Your task to perform on an android device: check battery use Image 0: 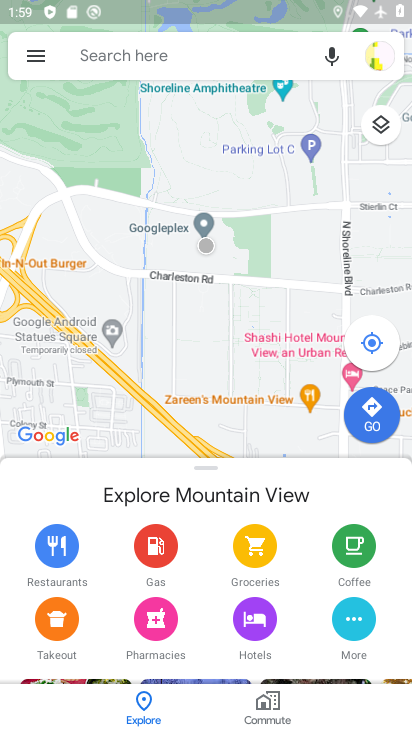
Step 0: press back button
Your task to perform on an android device: check battery use Image 1: 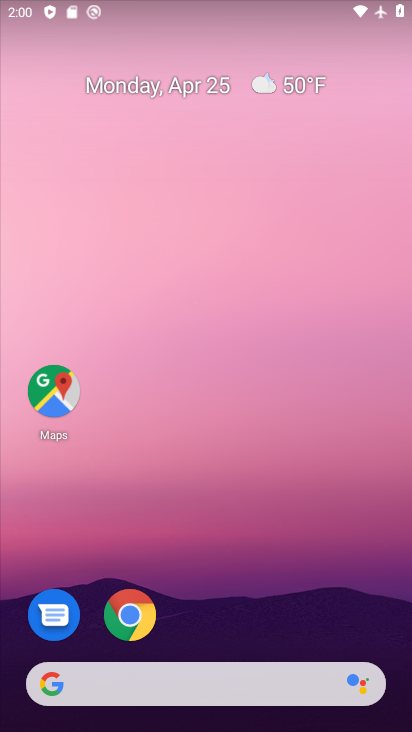
Step 1: drag from (208, 516) to (215, 98)
Your task to perform on an android device: check battery use Image 2: 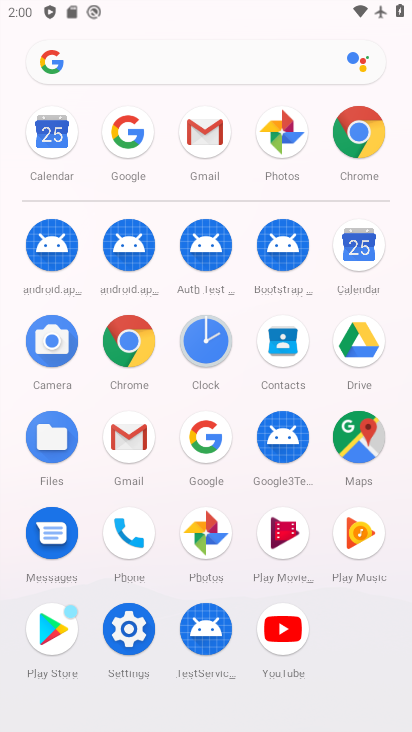
Step 2: click (129, 628)
Your task to perform on an android device: check battery use Image 3: 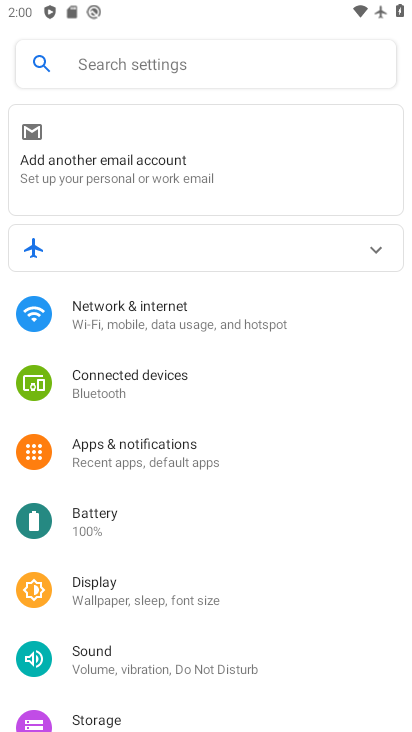
Step 3: click (95, 514)
Your task to perform on an android device: check battery use Image 4: 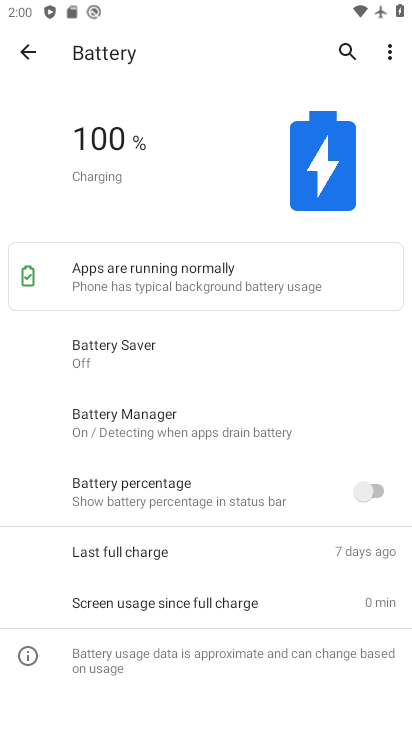
Step 4: click (390, 55)
Your task to perform on an android device: check battery use Image 5: 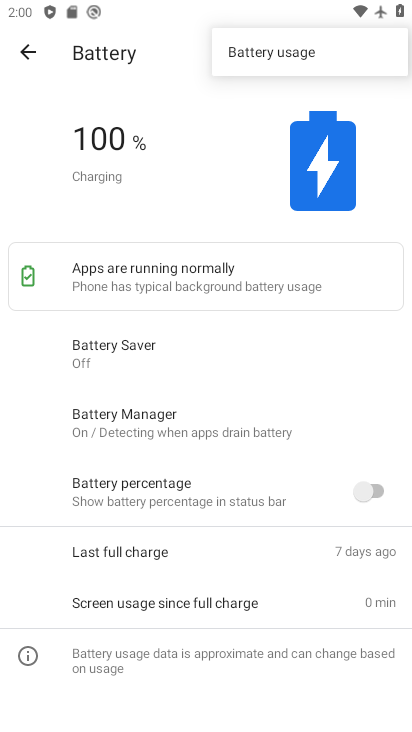
Step 5: click (303, 55)
Your task to perform on an android device: check battery use Image 6: 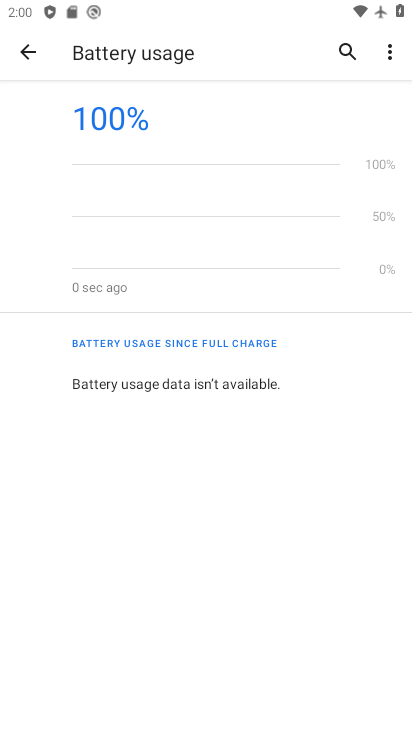
Step 6: task complete